Your task to perform on an android device: Show me productivity apps on the Play Store Image 0: 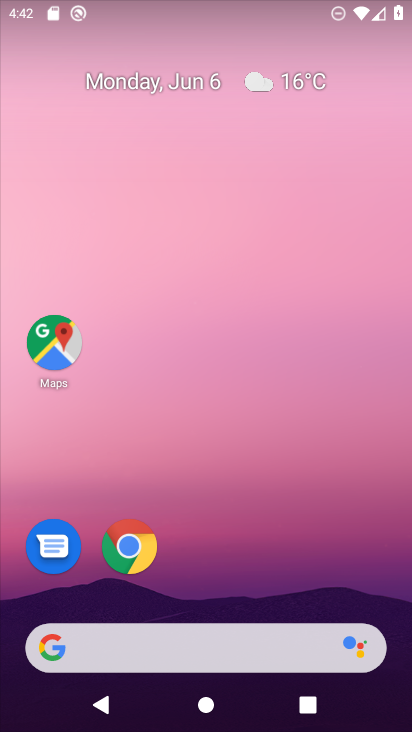
Step 0: drag from (216, 613) to (181, 112)
Your task to perform on an android device: Show me productivity apps on the Play Store Image 1: 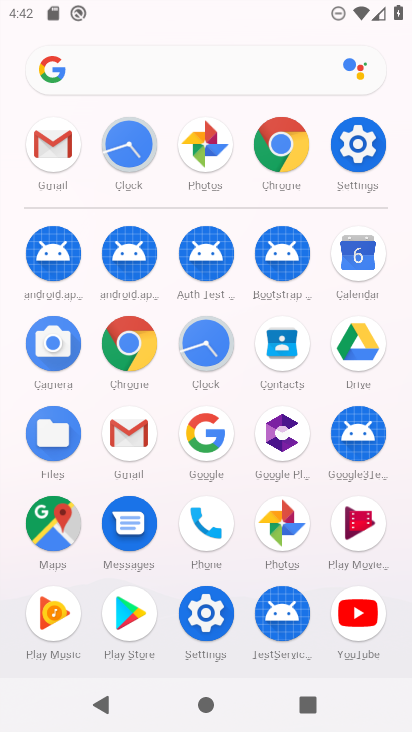
Step 1: click (124, 635)
Your task to perform on an android device: Show me productivity apps on the Play Store Image 2: 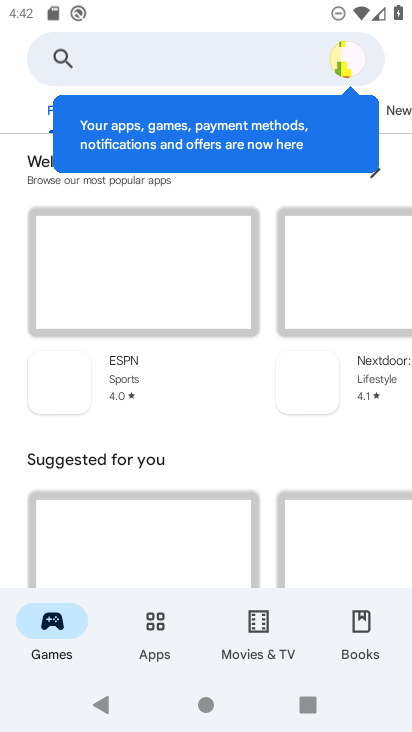
Step 2: click (138, 644)
Your task to perform on an android device: Show me productivity apps on the Play Store Image 3: 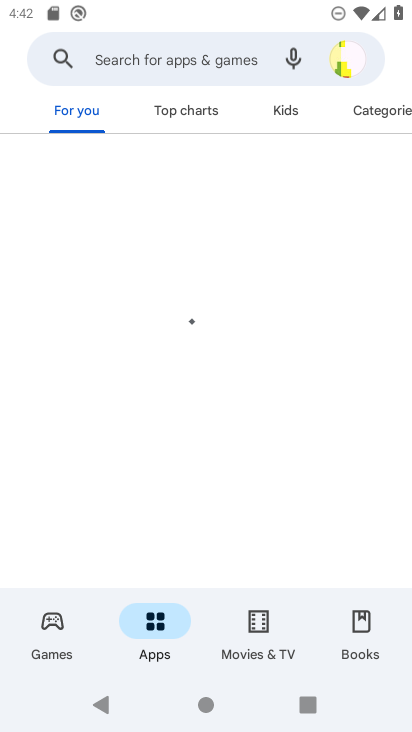
Step 3: drag from (376, 111) to (167, 102)
Your task to perform on an android device: Show me productivity apps on the Play Store Image 4: 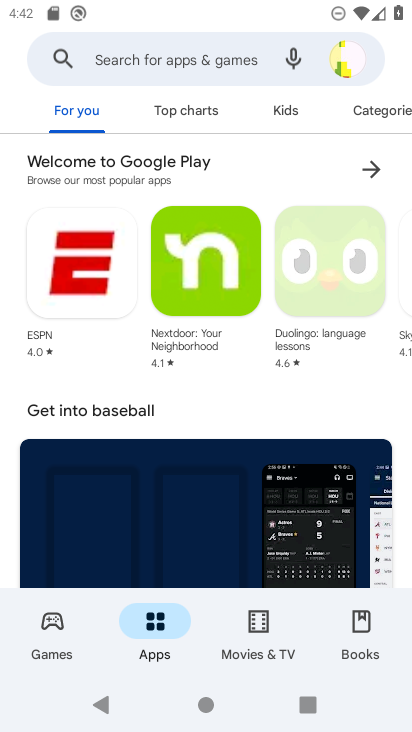
Step 4: click (366, 120)
Your task to perform on an android device: Show me productivity apps on the Play Store Image 5: 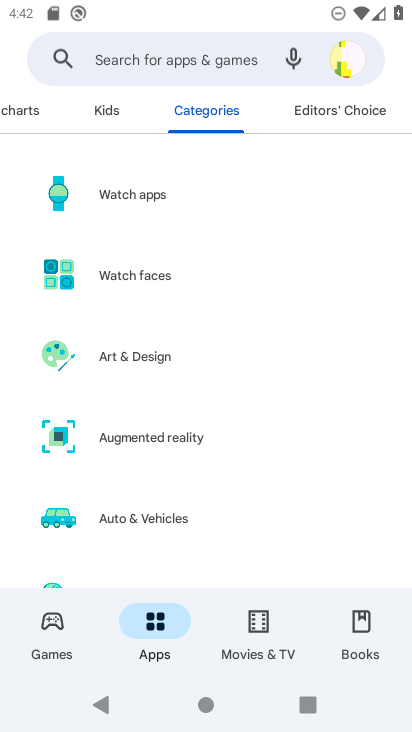
Step 5: drag from (257, 462) to (240, 61)
Your task to perform on an android device: Show me productivity apps on the Play Store Image 6: 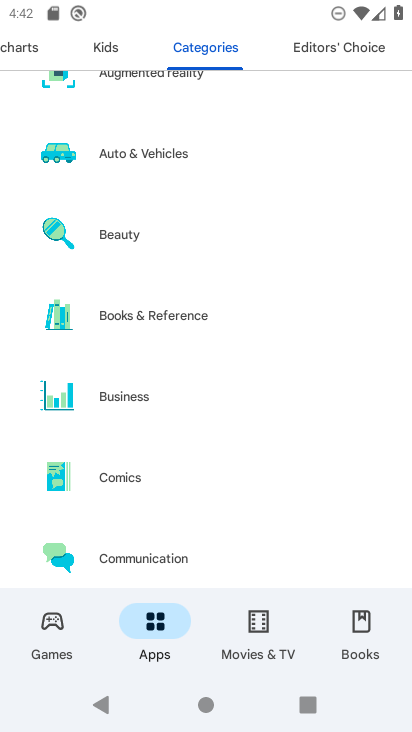
Step 6: drag from (272, 542) to (231, 95)
Your task to perform on an android device: Show me productivity apps on the Play Store Image 7: 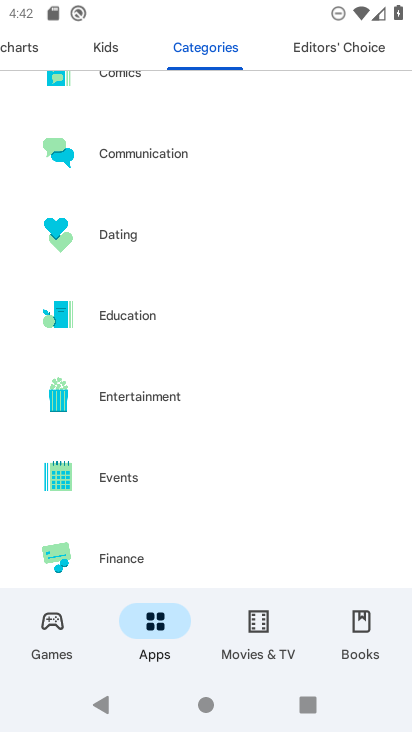
Step 7: drag from (277, 464) to (254, 129)
Your task to perform on an android device: Show me productivity apps on the Play Store Image 8: 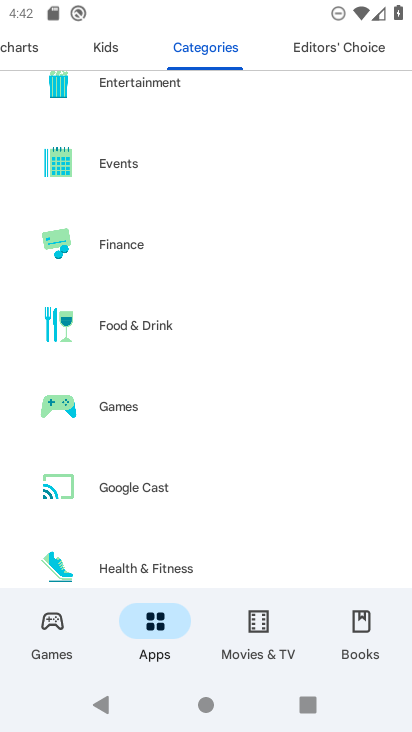
Step 8: drag from (282, 408) to (231, 39)
Your task to perform on an android device: Show me productivity apps on the Play Store Image 9: 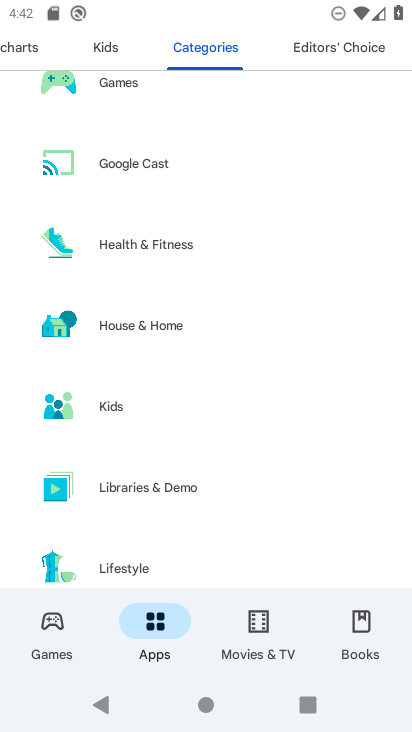
Step 9: drag from (235, 515) to (222, 132)
Your task to perform on an android device: Show me productivity apps on the Play Store Image 10: 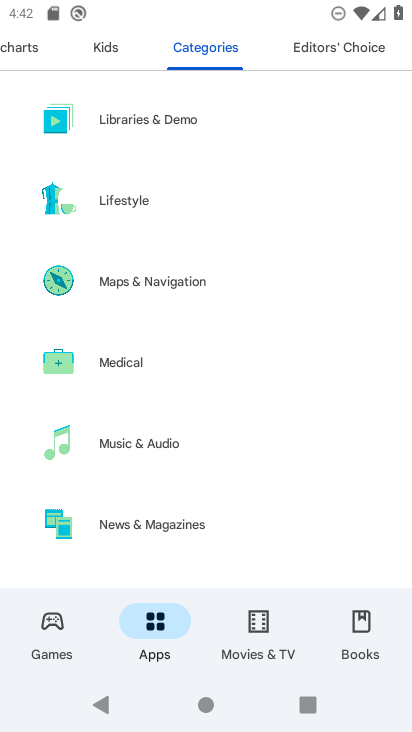
Step 10: drag from (223, 506) to (218, 155)
Your task to perform on an android device: Show me productivity apps on the Play Store Image 11: 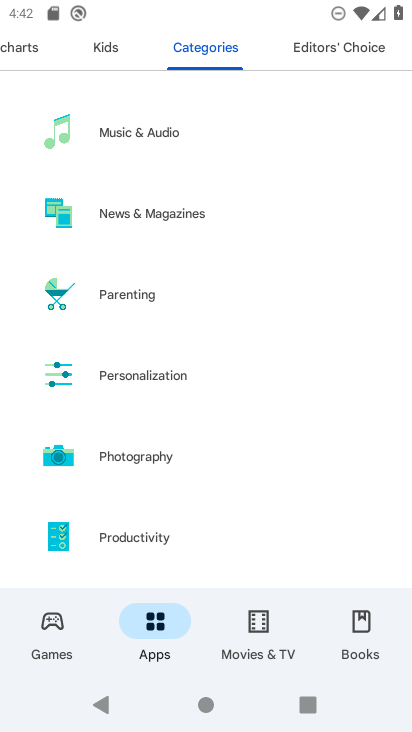
Step 11: click (143, 526)
Your task to perform on an android device: Show me productivity apps on the Play Store Image 12: 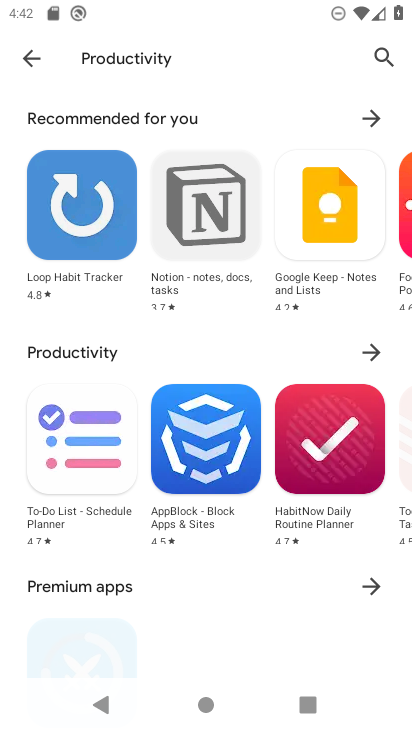
Step 12: task complete